Your task to perform on an android device: Go to notification settings Image 0: 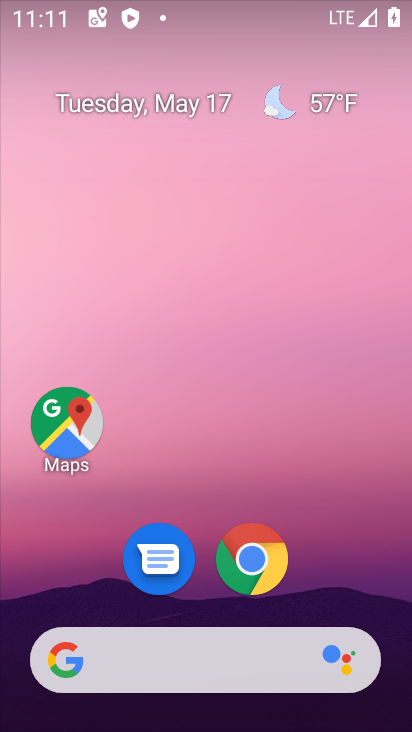
Step 0: drag from (349, 587) to (277, 4)
Your task to perform on an android device: Go to notification settings Image 1: 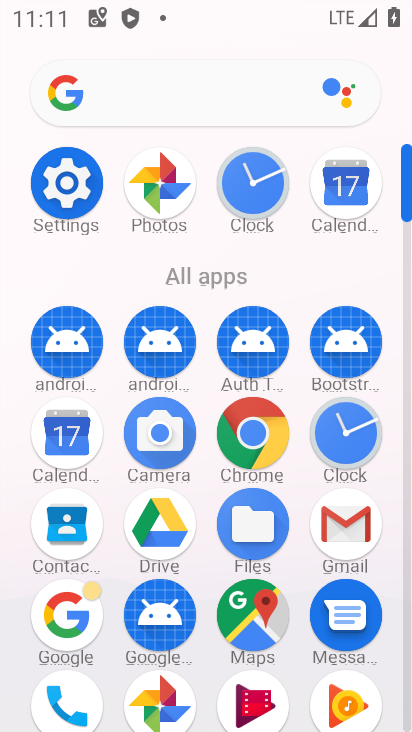
Step 1: click (77, 172)
Your task to perform on an android device: Go to notification settings Image 2: 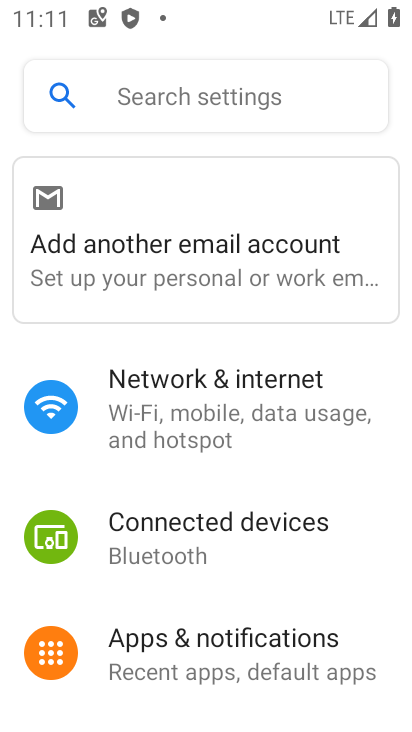
Step 2: click (218, 641)
Your task to perform on an android device: Go to notification settings Image 3: 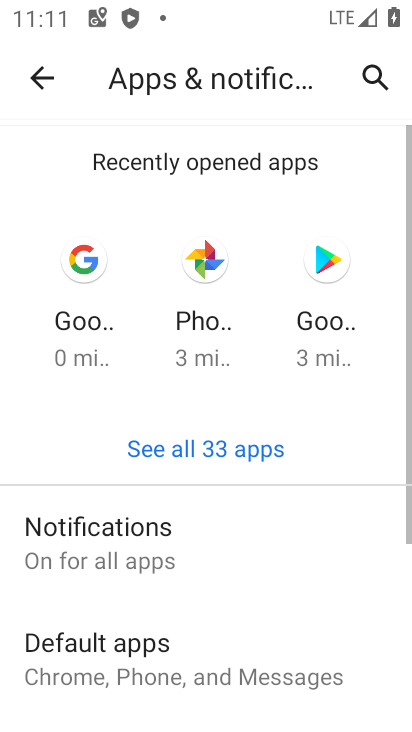
Step 3: click (158, 536)
Your task to perform on an android device: Go to notification settings Image 4: 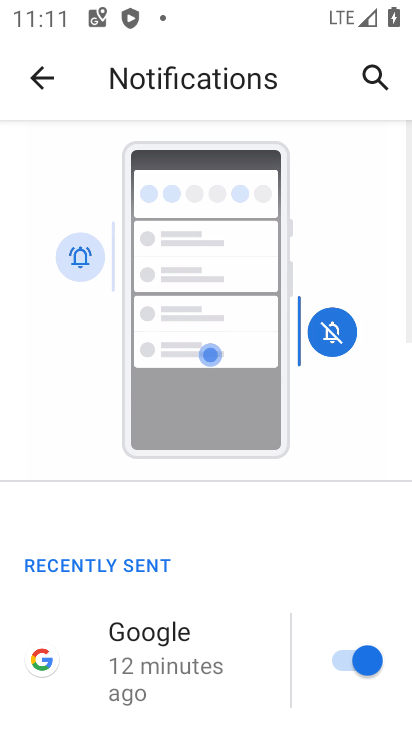
Step 4: task complete